Your task to perform on an android device: Open internet settings Image 0: 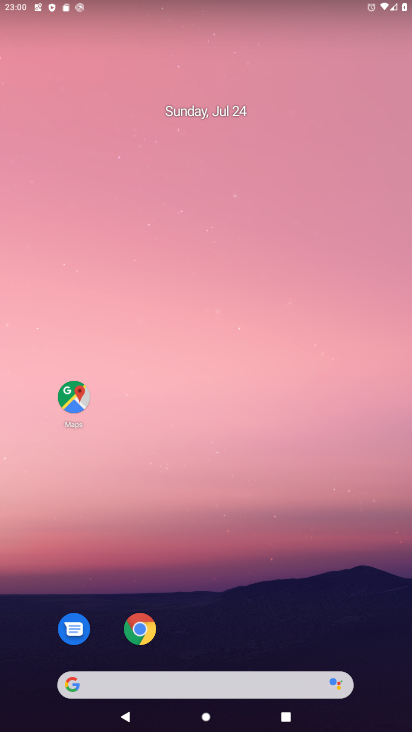
Step 0: drag from (223, 668) to (245, 183)
Your task to perform on an android device: Open internet settings Image 1: 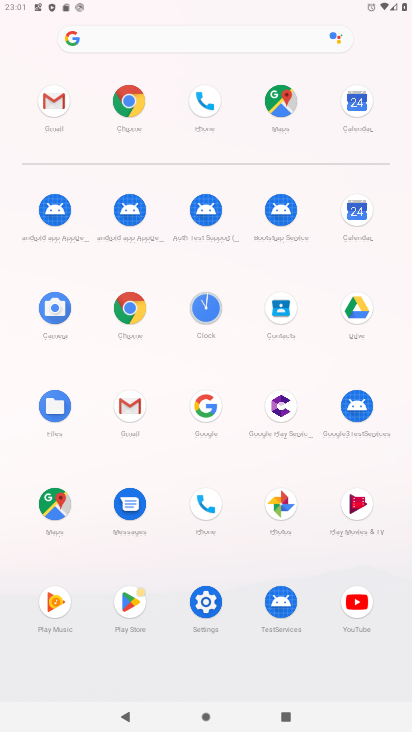
Step 1: click (128, 36)
Your task to perform on an android device: Open internet settings Image 2: 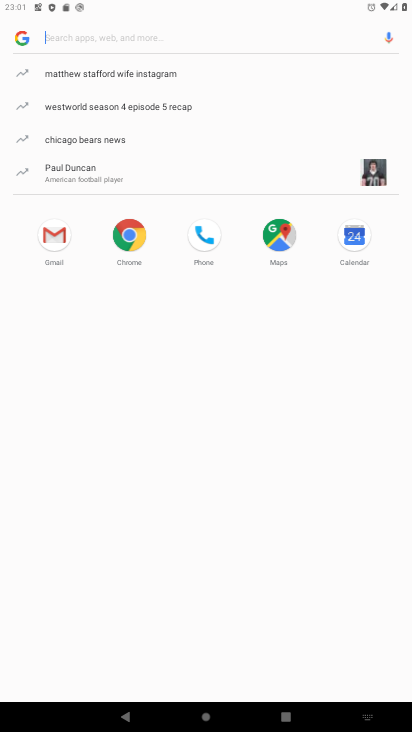
Step 2: press home button
Your task to perform on an android device: Open internet settings Image 3: 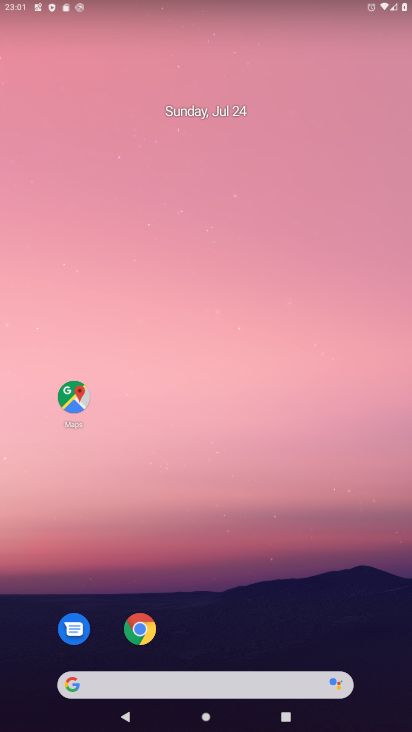
Step 3: drag from (191, 657) to (269, 59)
Your task to perform on an android device: Open internet settings Image 4: 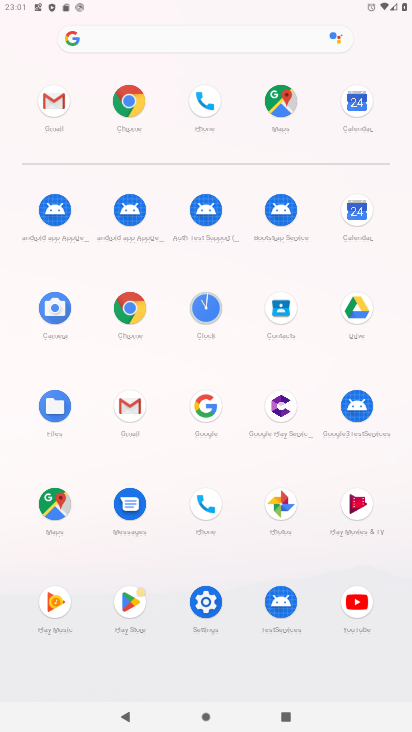
Step 4: click (200, 593)
Your task to perform on an android device: Open internet settings Image 5: 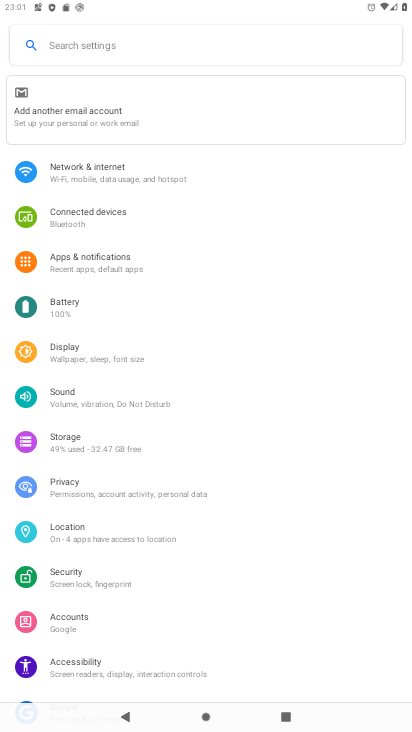
Step 5: click (73, 46)
Your task to perform on an android device: Open internet settings Image 6: 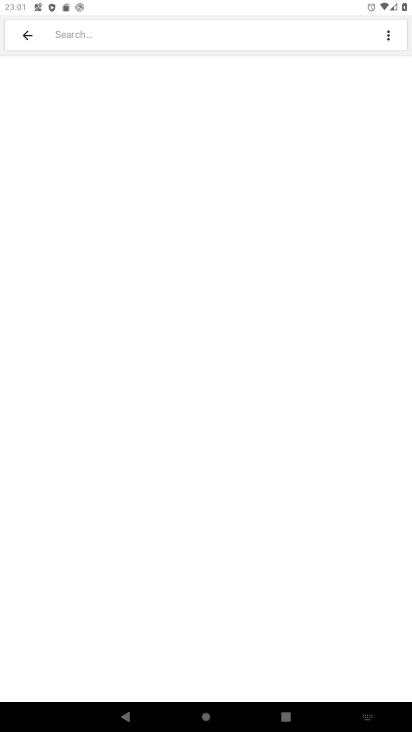
Step 6: click (20, 33)
Your task to perform on an android device: Open internet settings Image 7: 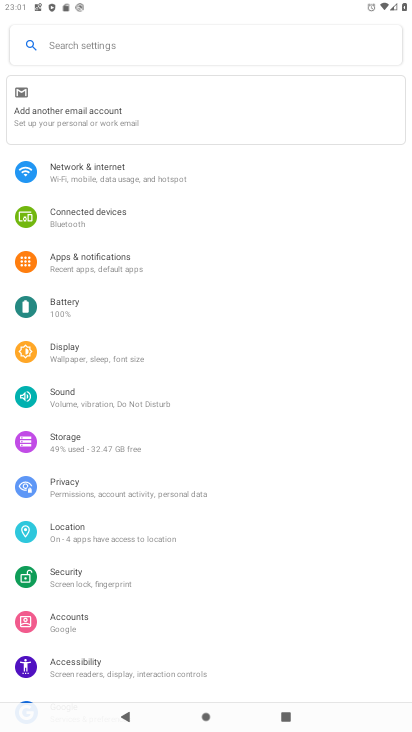
Step 7: click (88, 164)
Your task to perform on an android device: Open internet settings Image 8: 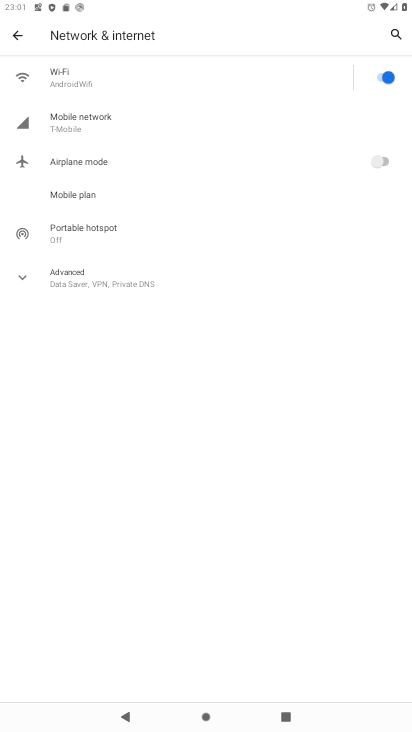
Step 8: task complete